Your task to perform on an android device: When is my next meeting? Image 0: 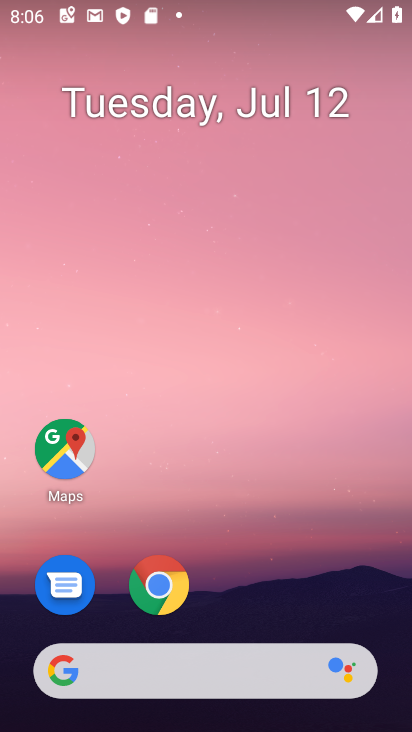
Step 0: drag from (274, 588) to (291, 52)
Your task to perform on an android device: When is my next meeting? Image 1: 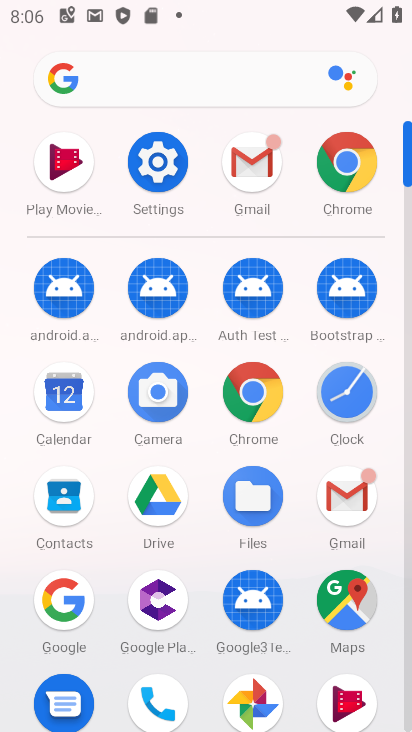
Step 1: click (63, 400)
Your task to perform on an android device: When is my next meeting? Image 2: 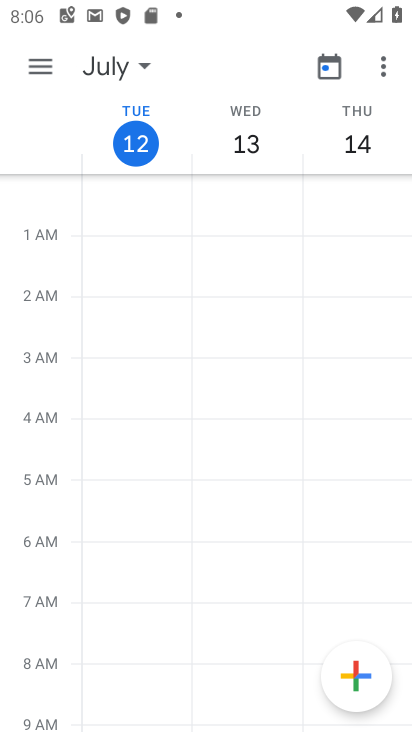
Step 2: drag from (214, 584) to (252, 277)
Your task to perform on an android device: When is my next meeting? Image 3: 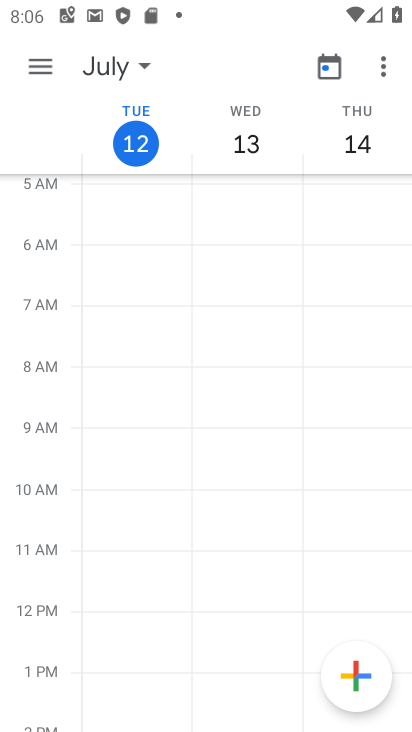
Step 3: click (35, 69)
Your task to perform on an android device: When is my next meeting? Image 4: 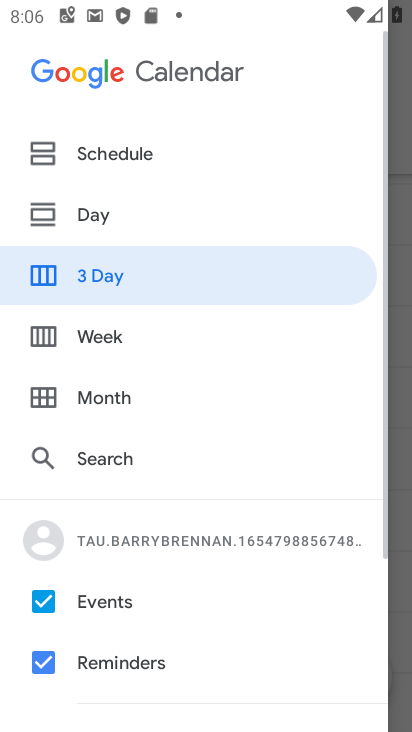
Step 4: click (87, 149)
Your task to perform on an android device: When is my next meeting? Image 5: 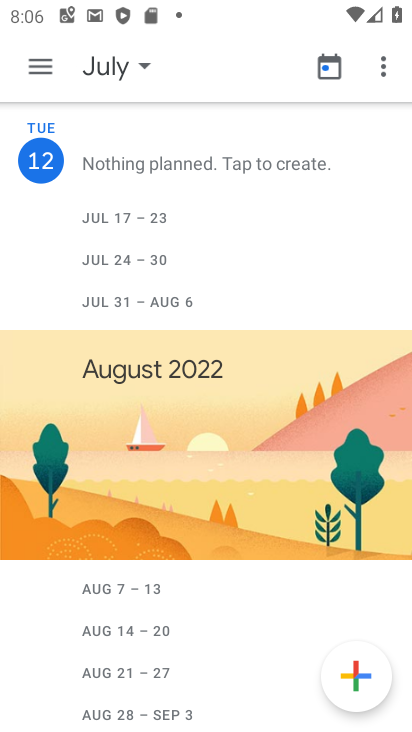
Step 5: task complete